Your task to perform on an android device: turn off improve location accuracy Image 0: 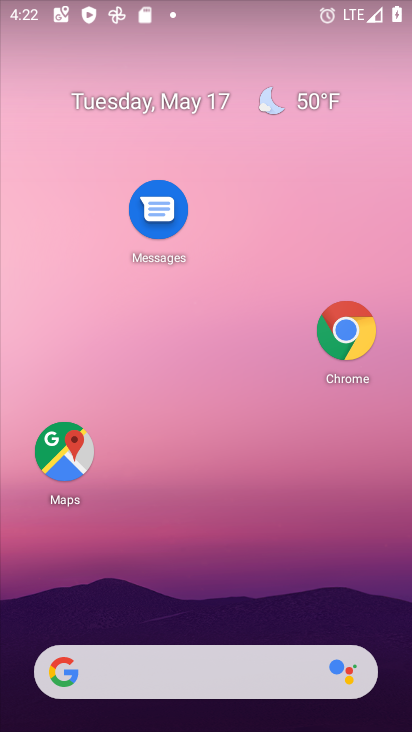
Step 0: drag from (232, 559) to (136, 67)
Your task to perform on an android device: turn off improve location accuracy Image 1: 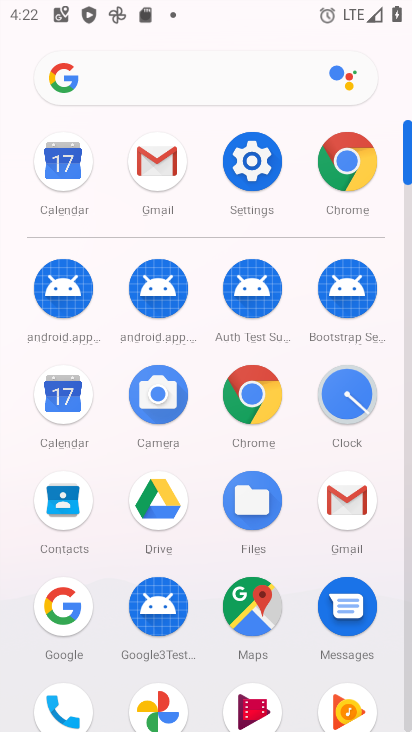
Step 1: click (255, 181)
Your task to perform on an android device: turn off improve location accuracy Image 2: 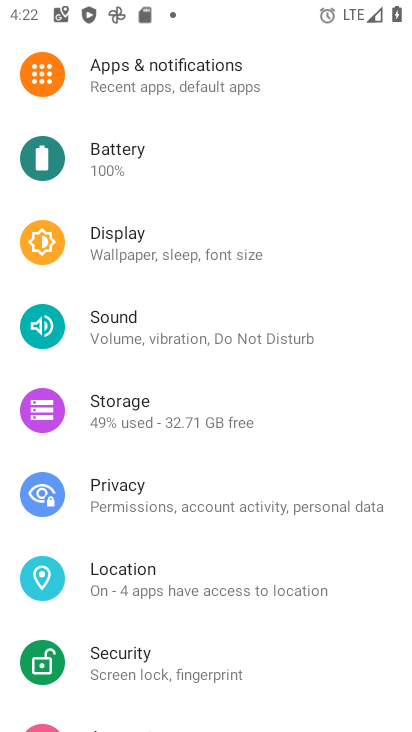
Step 2: click (258, 553)
Your task to perform on an android device: turn off improve location accuracy Image 3: 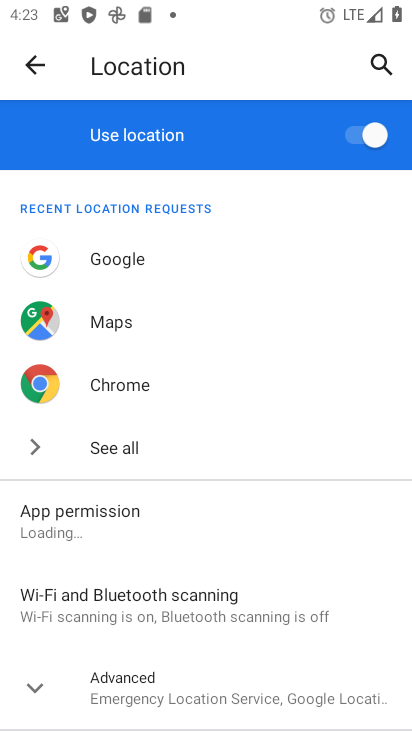
Step 3: drag from (273, 524) to (247, 259)
Your task to perform on an android device: turn off improve location accuracy Image 4: 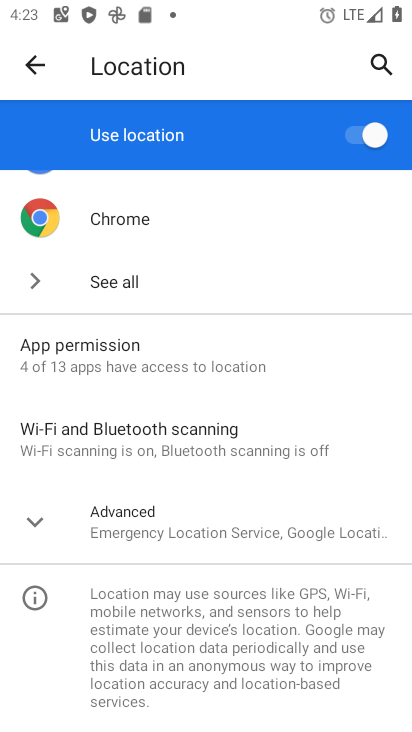
Step 4: click (228, 522)
Your task to perform on an android device: turn off improve location accuracy Image 5: 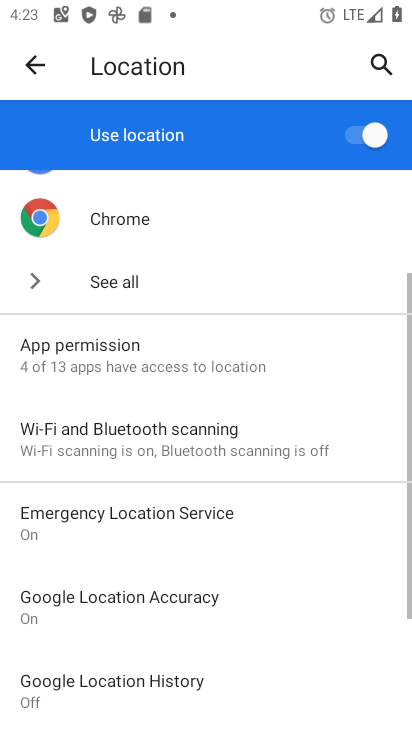
Step 5: drag from (228, 682) to (211, 533)
Your task to perform on an android device: turn off improve location accuracy Image 6: 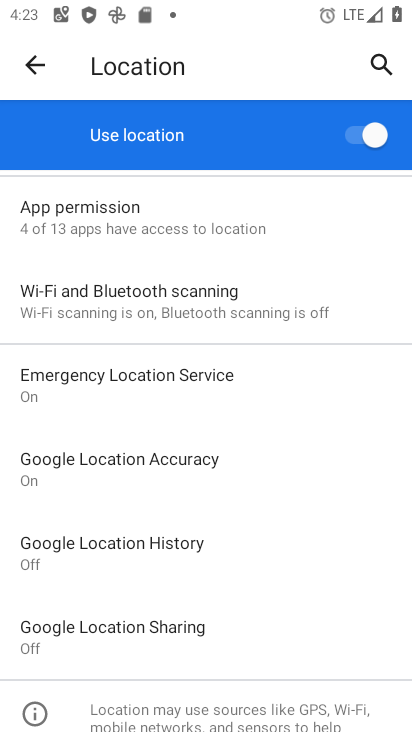
Step 6: click (209, 485)
Your task to perform on an android device: turn off improve location accuracy Image 7: 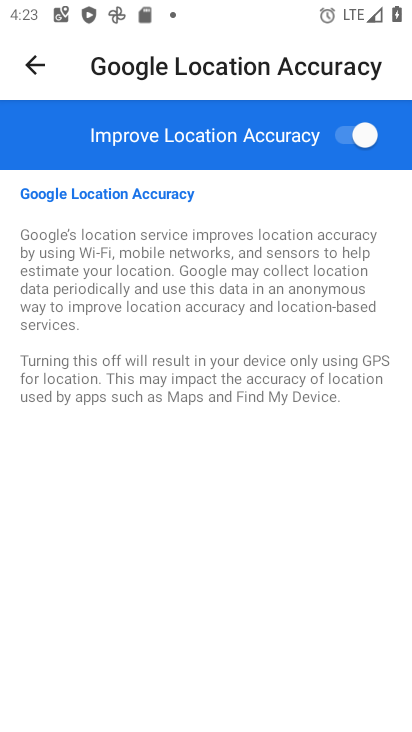
Step 7: click (331, 136)
Your task to perform on an android device: turn off improve location accuracy Image 8: 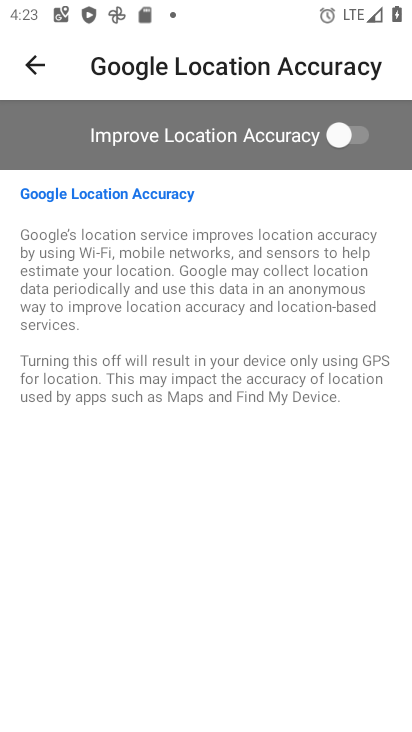
Step 8: task complete